Your task to perform on an android device: Open battery settings Image 0: 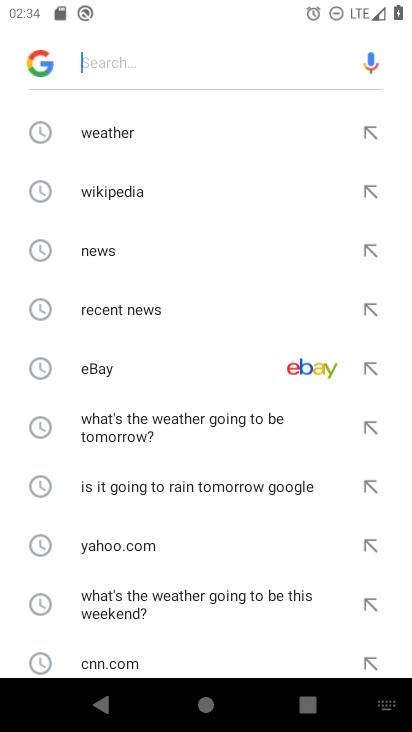
Step 0: press home button
Your task to perform on an android device: Open battery settings Image 1: 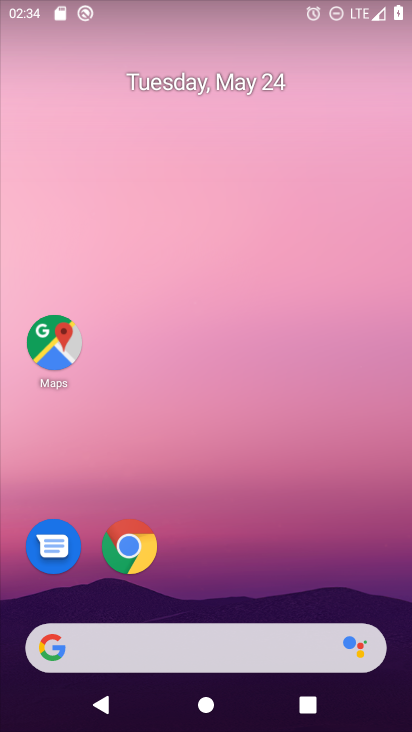
Step 1: drag from (268, 648) to (279, 6)
Your task to perform on an android device: Open battery settings Image 2: 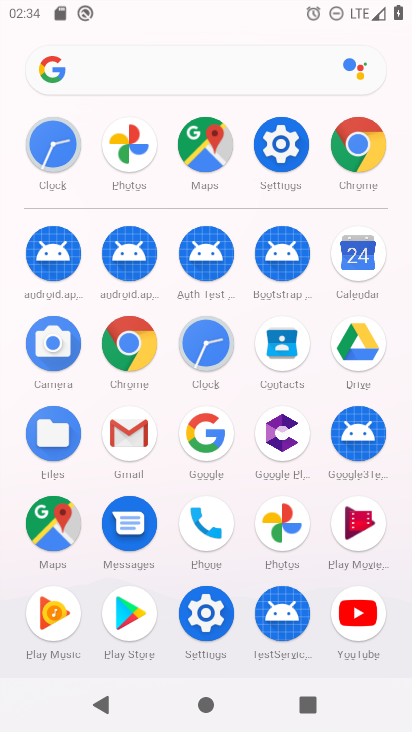
Step 2: click (272, 148)
Your task to perform on an android device: Open battery settings Image 3: 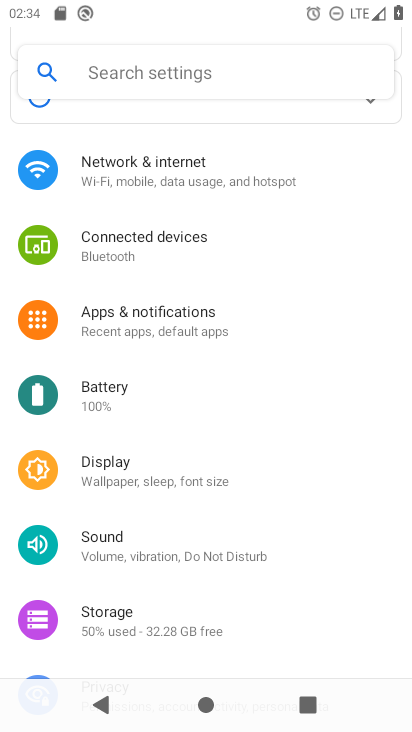
Step 3: click (120, 400)
Your task to perform on an android device: Open battery settings Image 4: 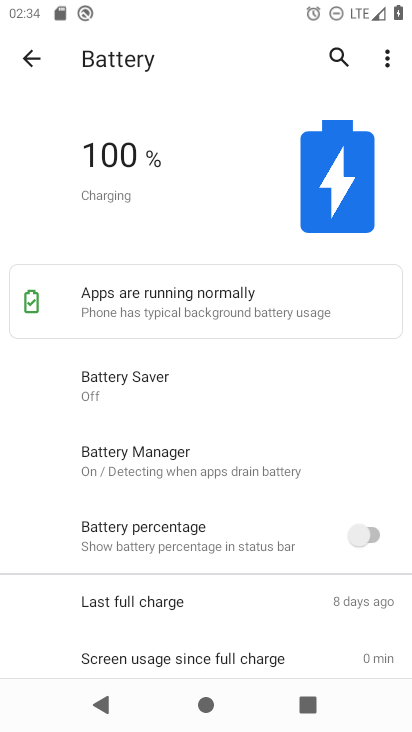
Step 4: task complete